Your task to perform on an android device: refresh tabs in the chrome app Image 0: 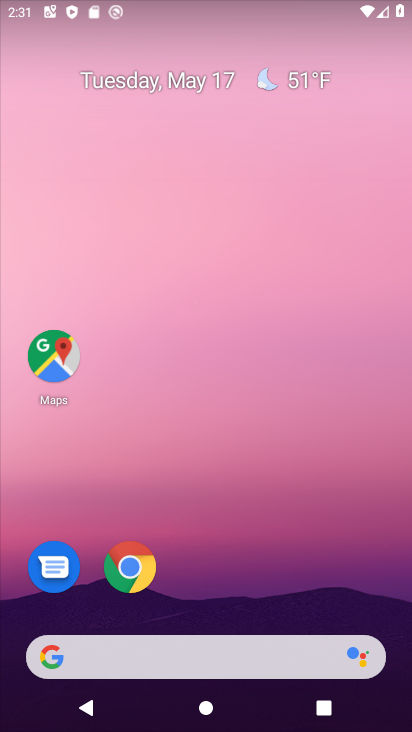
Step 0: click (146, 578)
Your task to perform on an android device: refresh tabs in the chrome app Image 1: 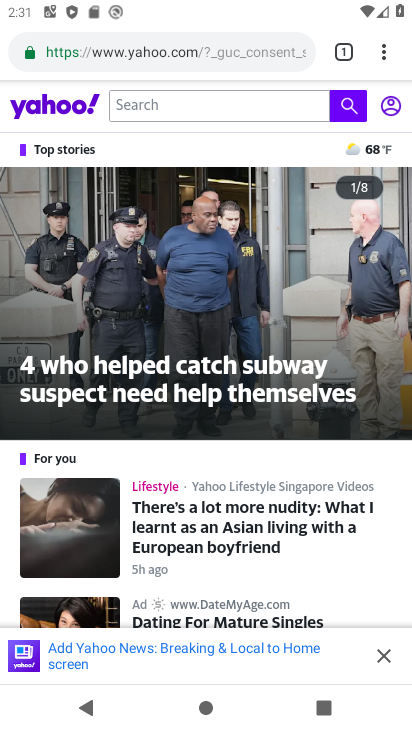
Step 1: click (383, 54)
Your task to perform on an android device: refresh tabs in the chrome app Image 2: 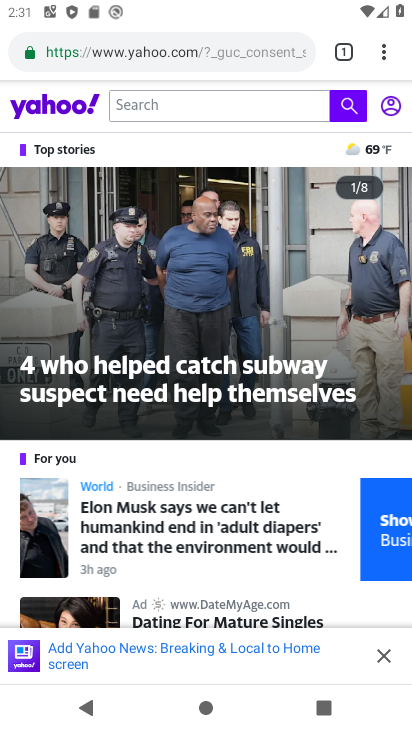
Step 2: task complete